Your task to perform on an android device: open wifi settings Image 0: 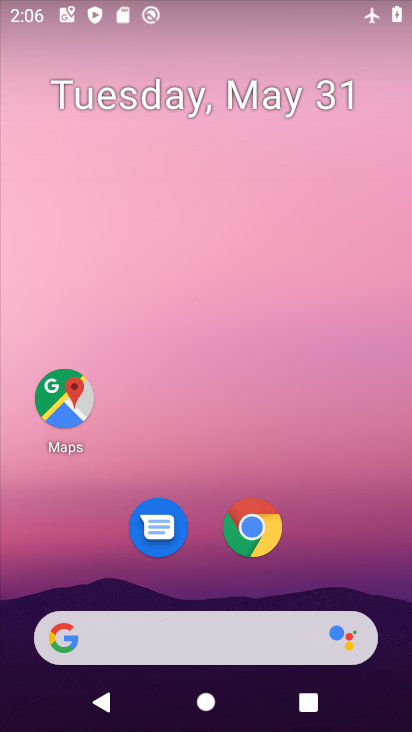
Step 0: drag from (345, 542) to (268, 3)
Your task to perform on an android device: open wifi settings Image 1: 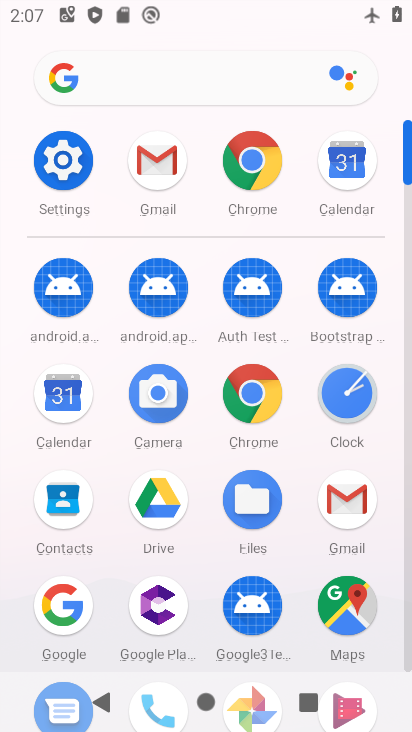
Step 1: click (65, 187)
Your task to perform on an android device: open wifi settings Image 2: 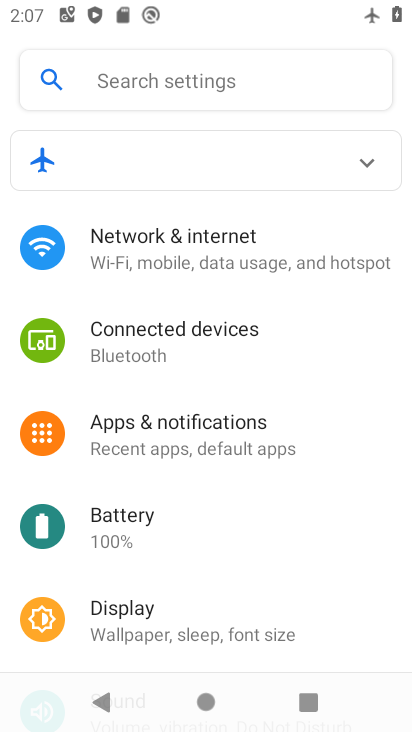
Step 2: click (126, 258)
Your task to perform on an android device: open wifi settings Image 3: 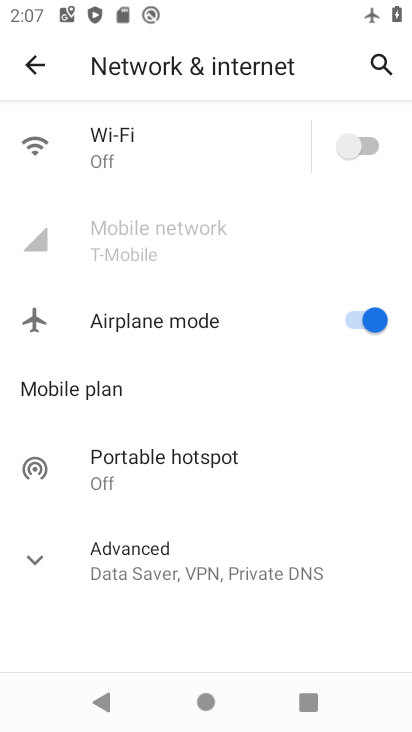
Step 3: click (129, 153)
Your task to perform on an android device: open wifi settings Image 4: 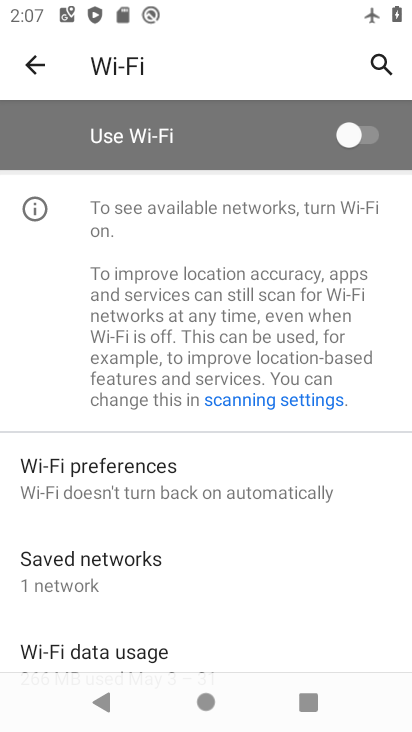
Step 4: task complete